Your task to perform on an android device: turn on improve location accuracy Image 0: 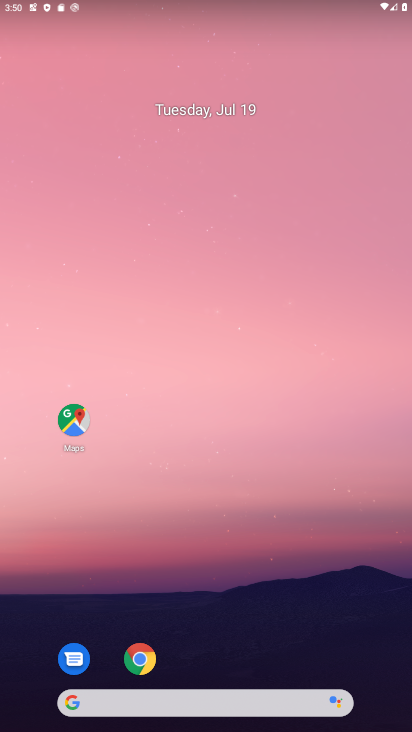
Step 0: drag from (292, 610) to (173, 0)
Your task to perform on an android device: turn on improve location accuracy Image 1: 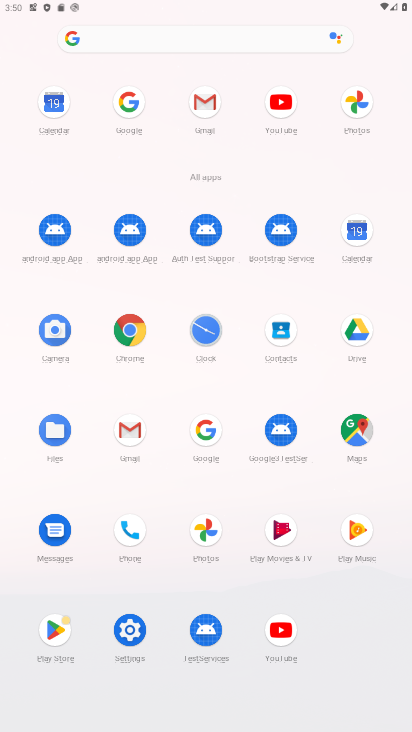
Step 1: click (114, 635)
Your task to perform on an android device: turn on improve location accuracy Image 2: 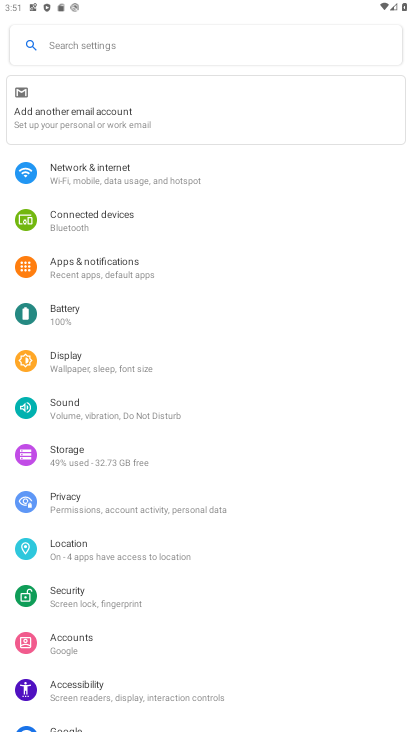
Step 2: click (83, 553)
Your task to perform on an android device: turn on improve location accuracy Image 3: 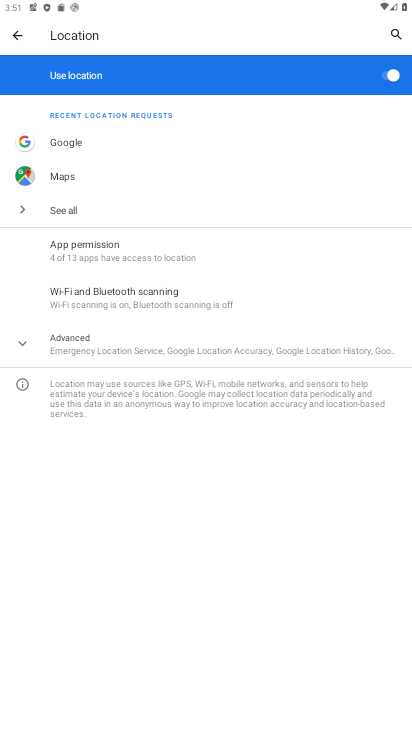
Step 3: click (137, 337)
Your task to perform on an android device: turn on improve location accuracy Image 4: 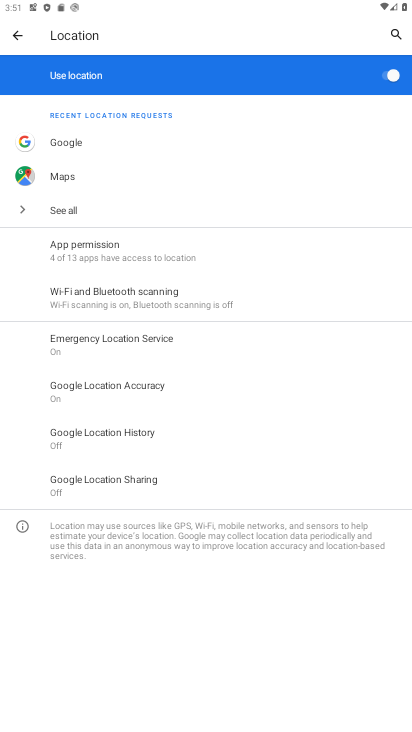
Step 4: click (141, 388)
Your task to perform on an android device: turn on improve location accuracy Image 5: 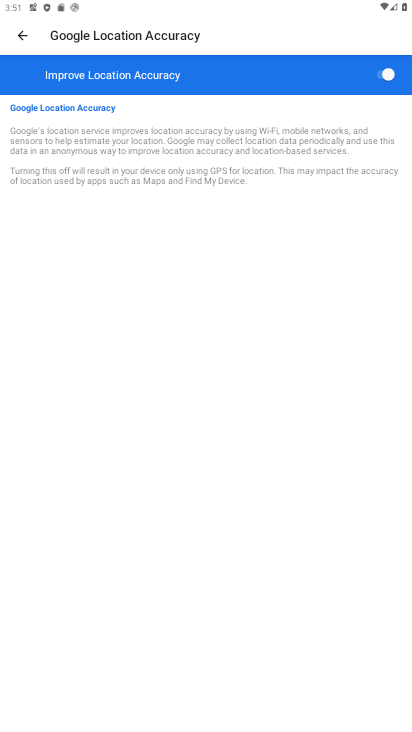
Step 5: task complete